Your task to perform on an android device: Open settings on Google Maps Image 0: 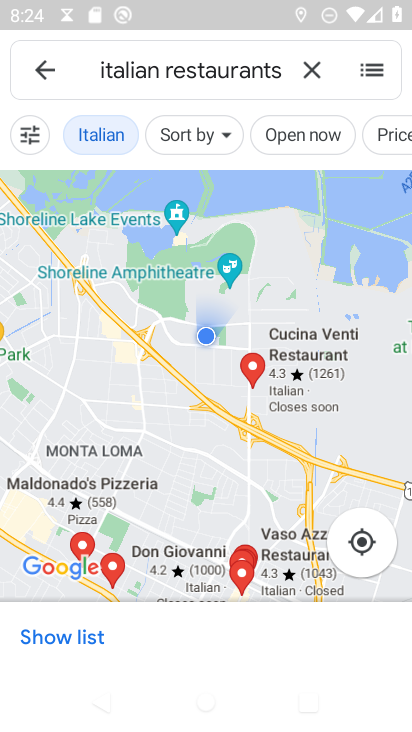
Step 0: press home button
Your task to perform on an android device: Open settings on Google Maps Image 1: 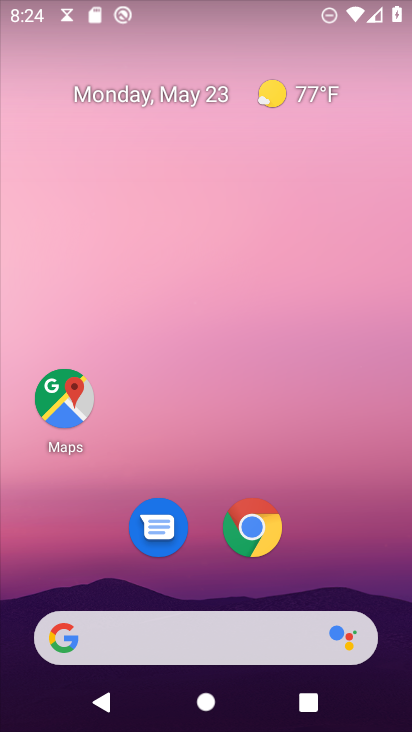
Step 1: drag from (240, 670) to (254, 44)
Your task to perform on an android device: Open settings on Google Maps Image 2: 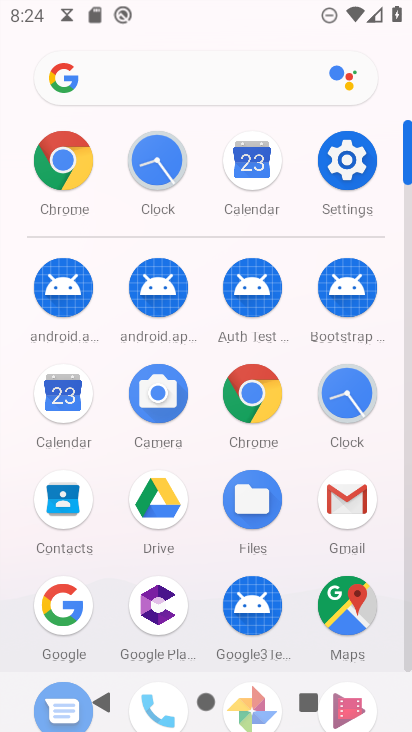
Step 2: click (355, 616)
Your task to perform on an android device: Open settings on Google Maps Image 3: 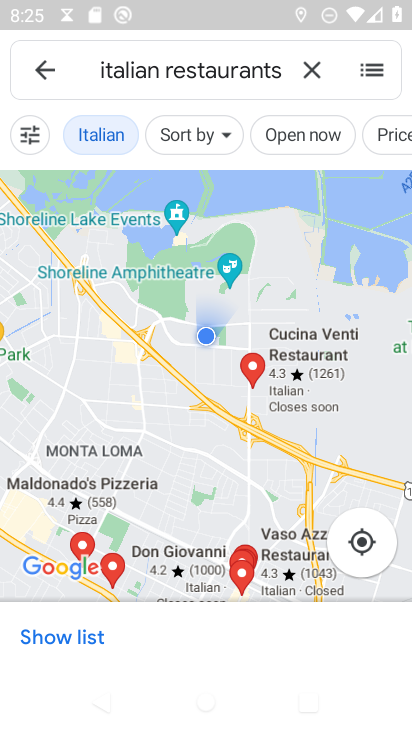
Step 3: click (26, 77)
Your task to perform on an android device: Open settings on Google Maps Image 4: 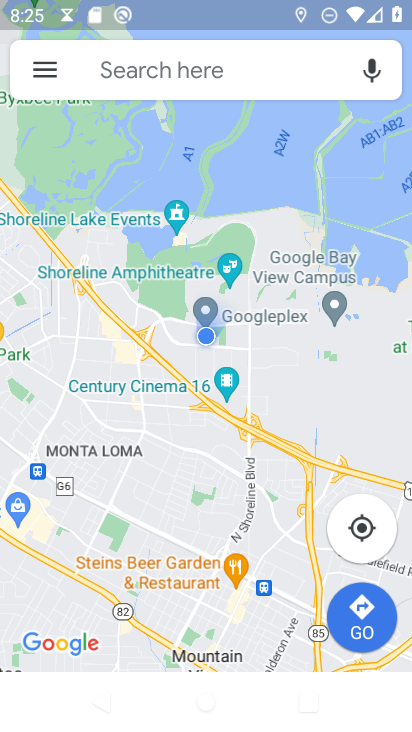
Step 4: task complete